Your task to perform on an android device: check android version Image 0: 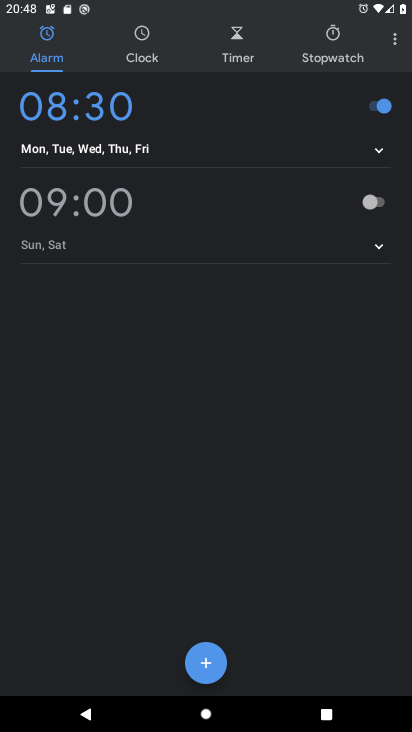
Step 0: press home button
Your task to perform on an android device: check android version Image 1: 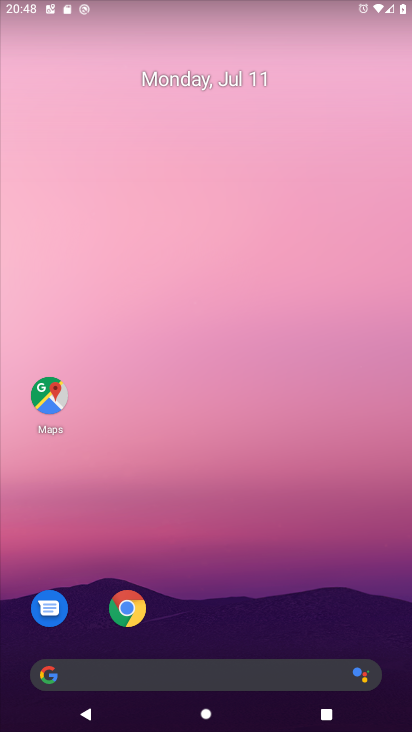
Step 1: drag from (201, 657) to (231, 40)
Your task to perform on an android device: check android version Image 2: 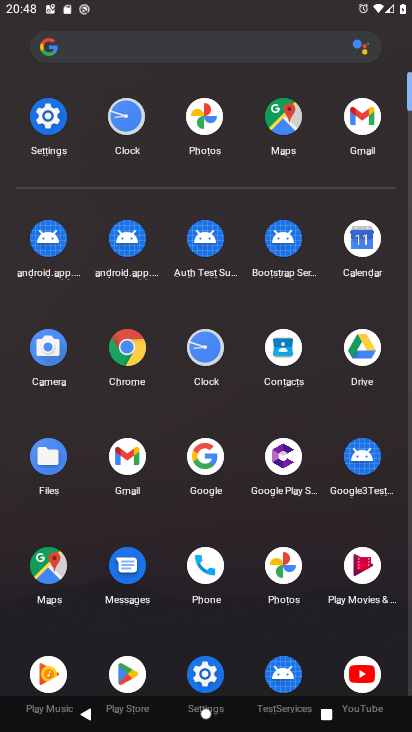
Step 2: click (48, 142)
Your task to perform on an android device: check android version Image 3: 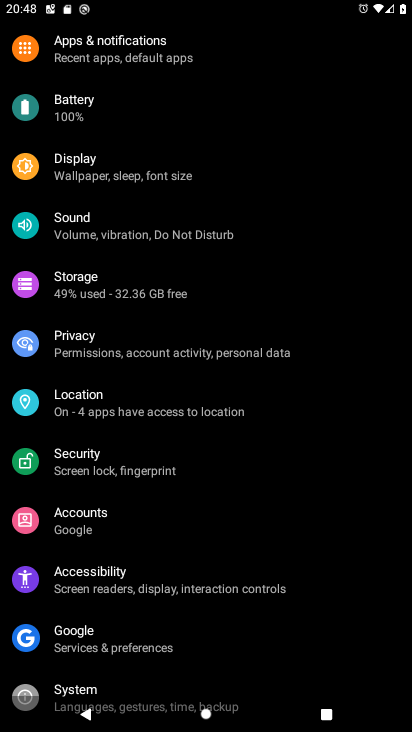
Step 3: drag from (206, 579) to (198, 68)
Your task to perform on an android device: check android version Image 4: 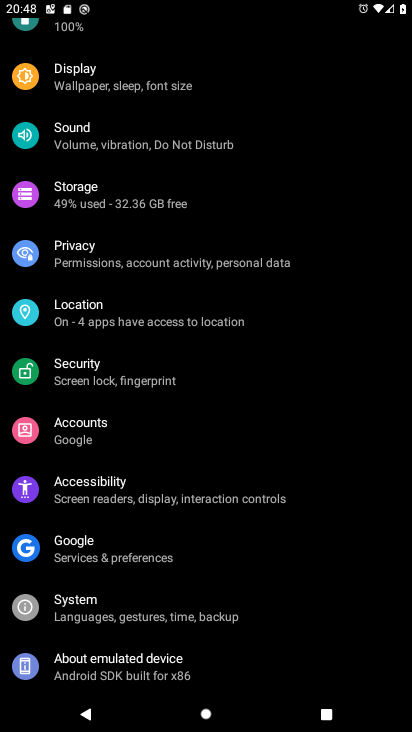
Step 4: click (146, 650)
Your task to perform on an android device: check android version Image 5: 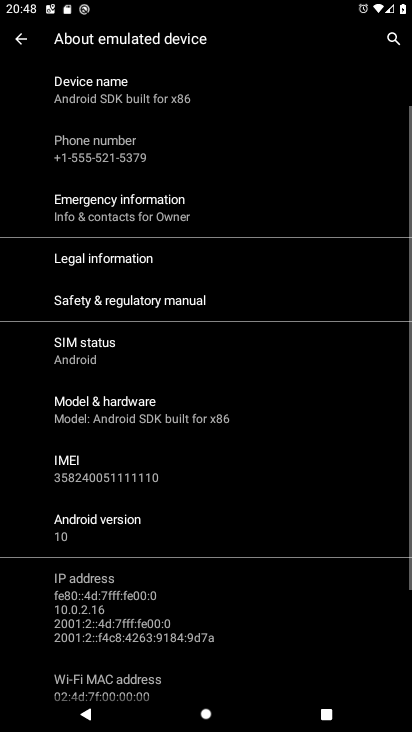
Step 5: task complete